Your task to perform on an android device: Open calendar and show me the fourth week of next month Image 0: 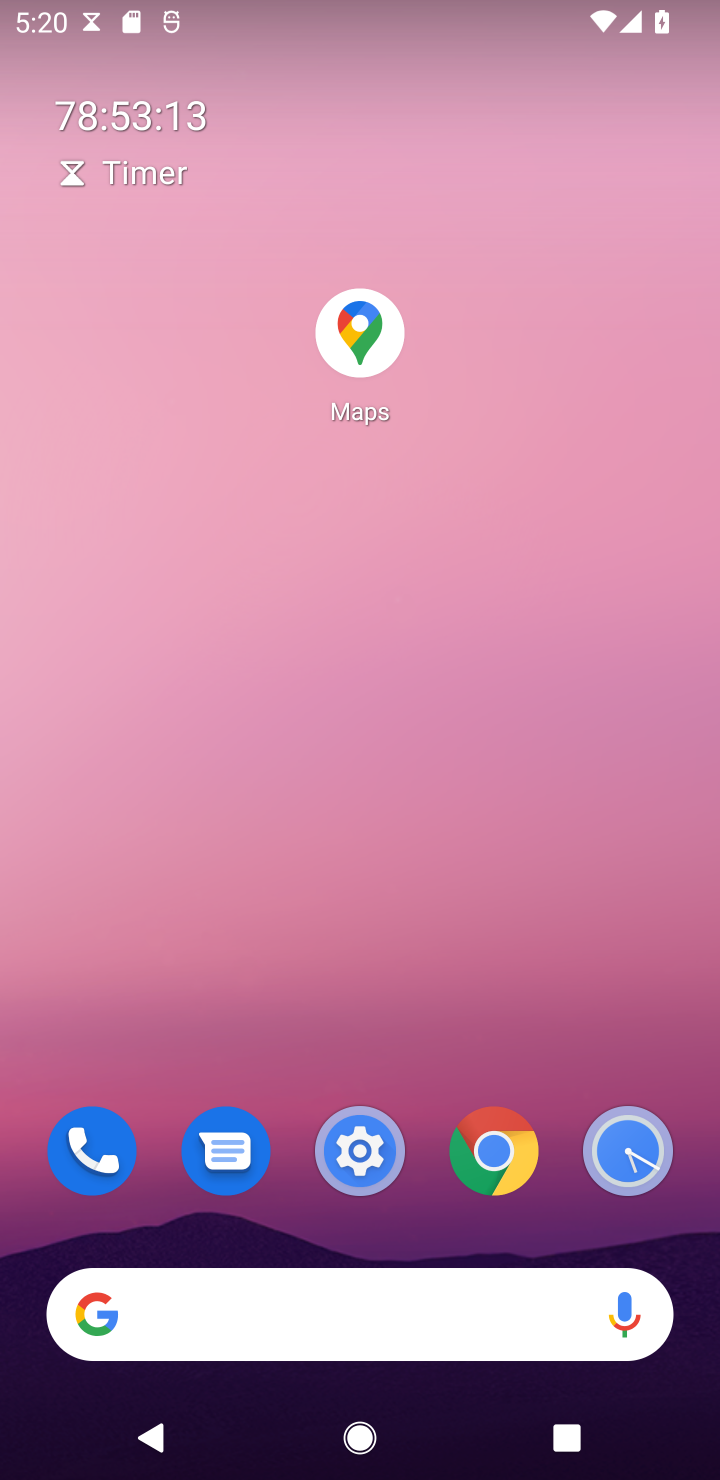
Step 0: drag from (354, 574) to (354, 483)
Your task to perform on an android device: Open calendar and show me the fourth week of next month Image 1: 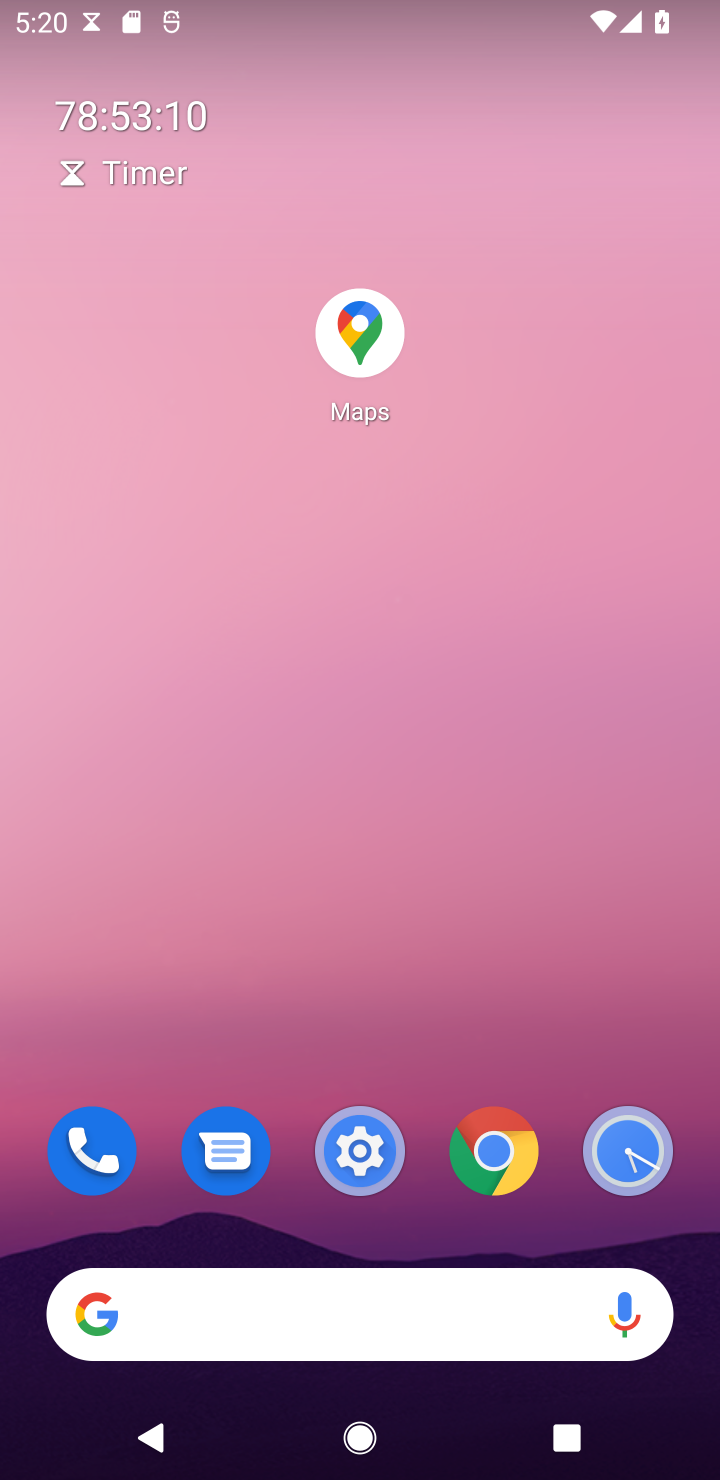
Step 1: drag from (421, 847) to (426, 606)
Your task to perform on an android device: Open calendar and show me the fourth week of next month Image 2: 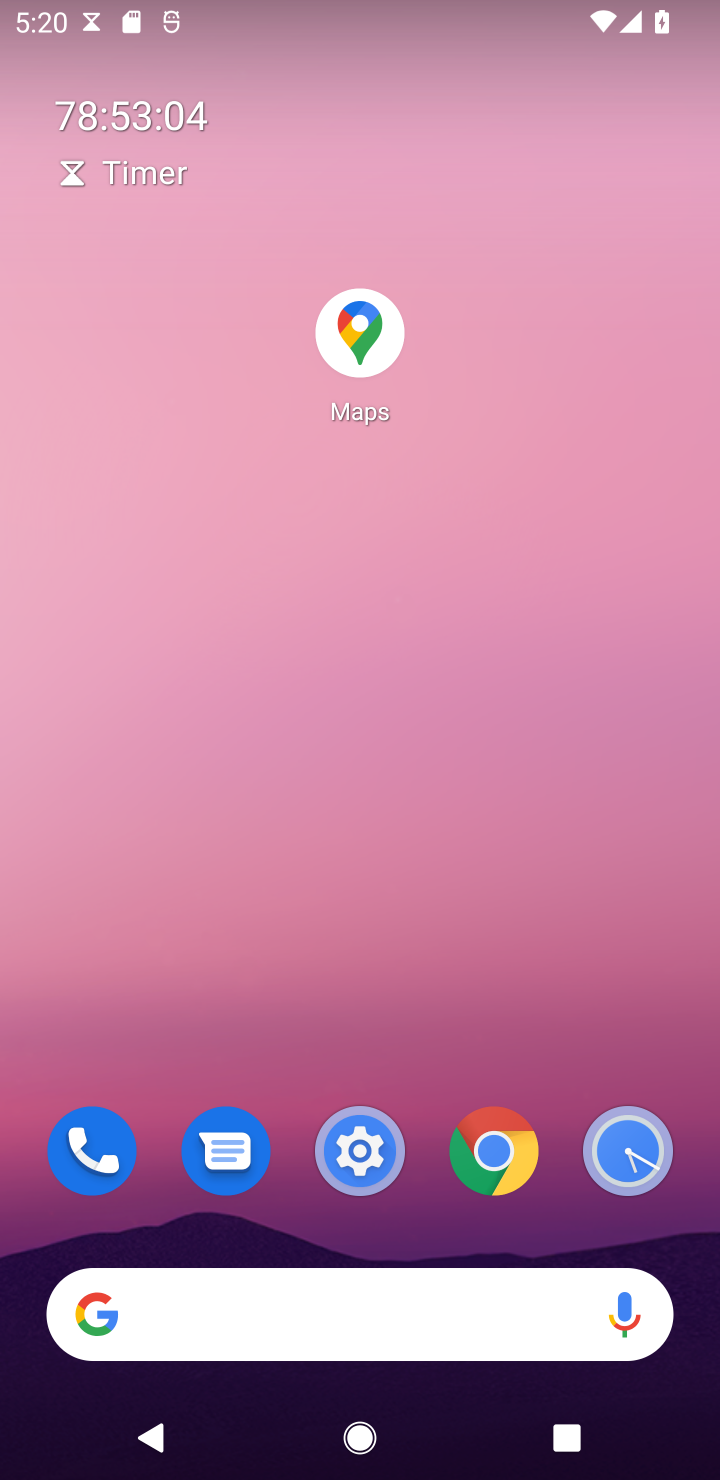
Step 2: drag from (449, 1078) to (449, 262)
Your task to perform on an android device: Open calendar and show me the fourth week of next month Image 3: 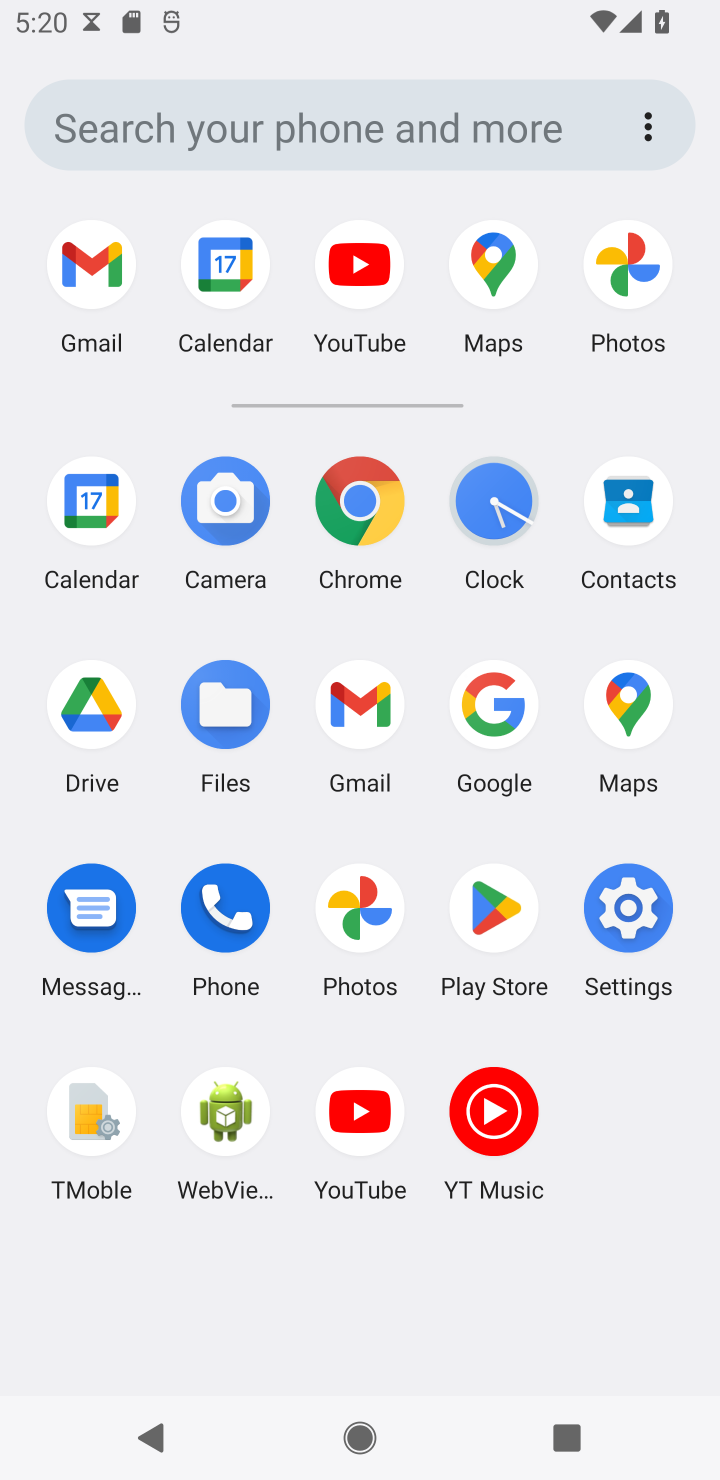
Step 3: click (210, 266)
Your task to perform on an android device: Open calendar and show me the fourth week of next month Image 4: 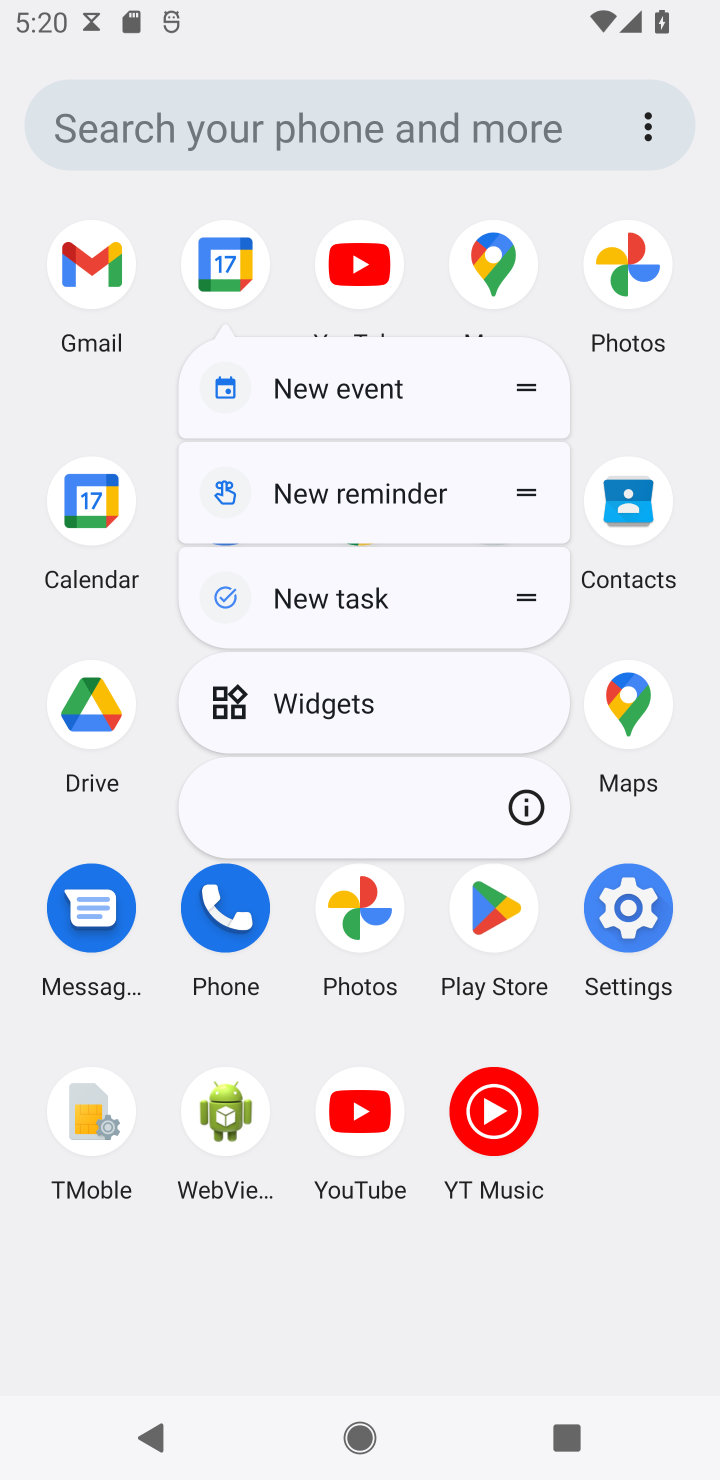
Step 4: click (210, 266)
Your task to perform on an android device: Open calendar and show me the fourth week of next month Image 5: 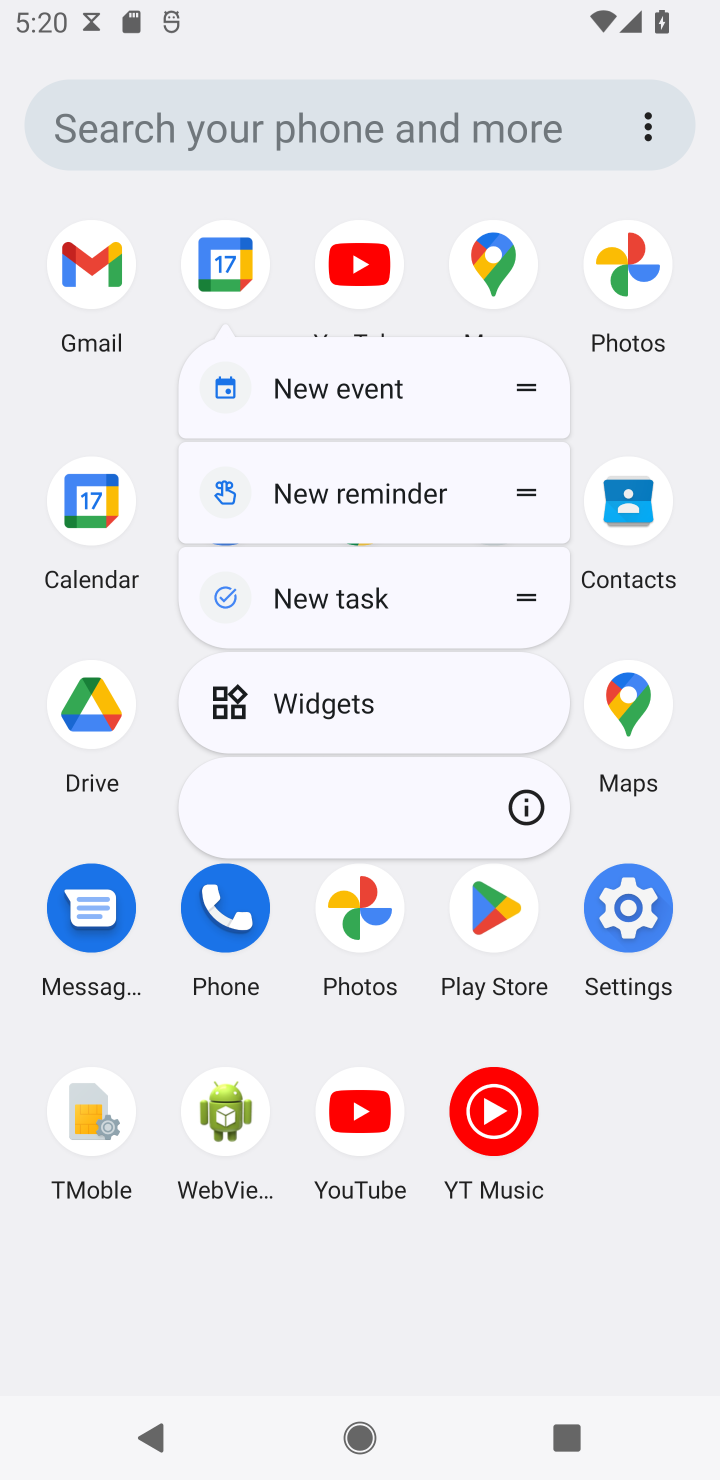
Step 5: click (210, 266)
Your task to perform on an android device: Open calendar and show me the fourth week of next month Image 6: 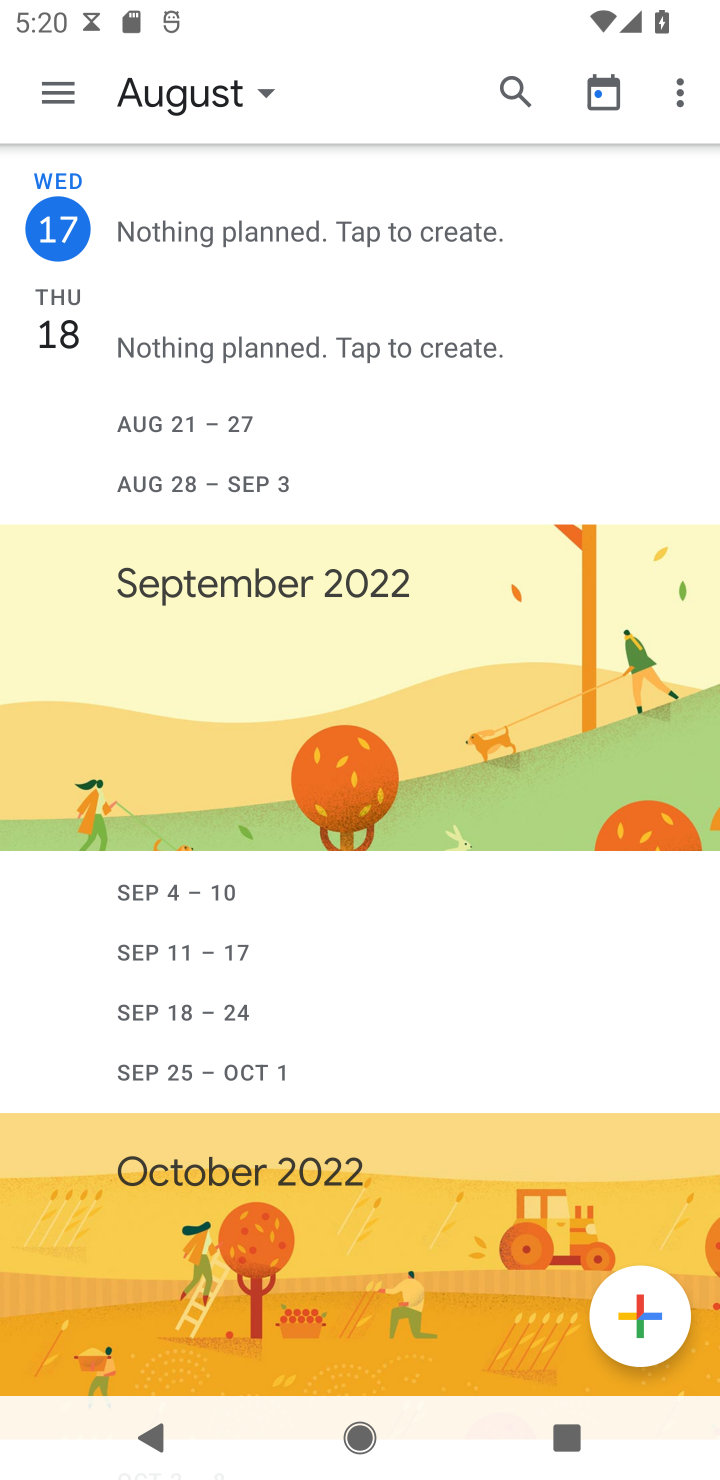
Step 6: click (62, 79)
Your task to perform on an android device: Open calendar and show me the fourth week of next month Image 7: 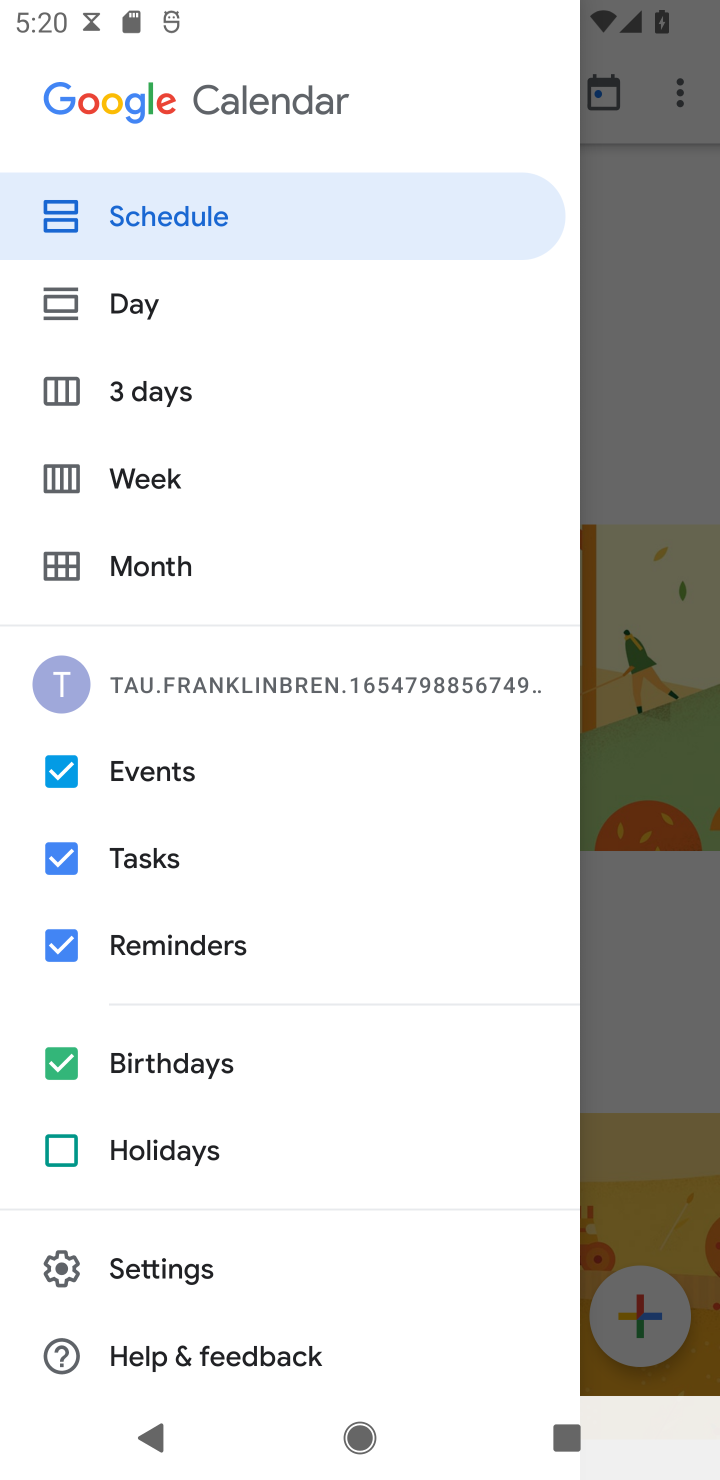
Step 7: click (161, 472)
Your task to perform on an android device: Open calendar and show me the fourth week of next month Image 8: 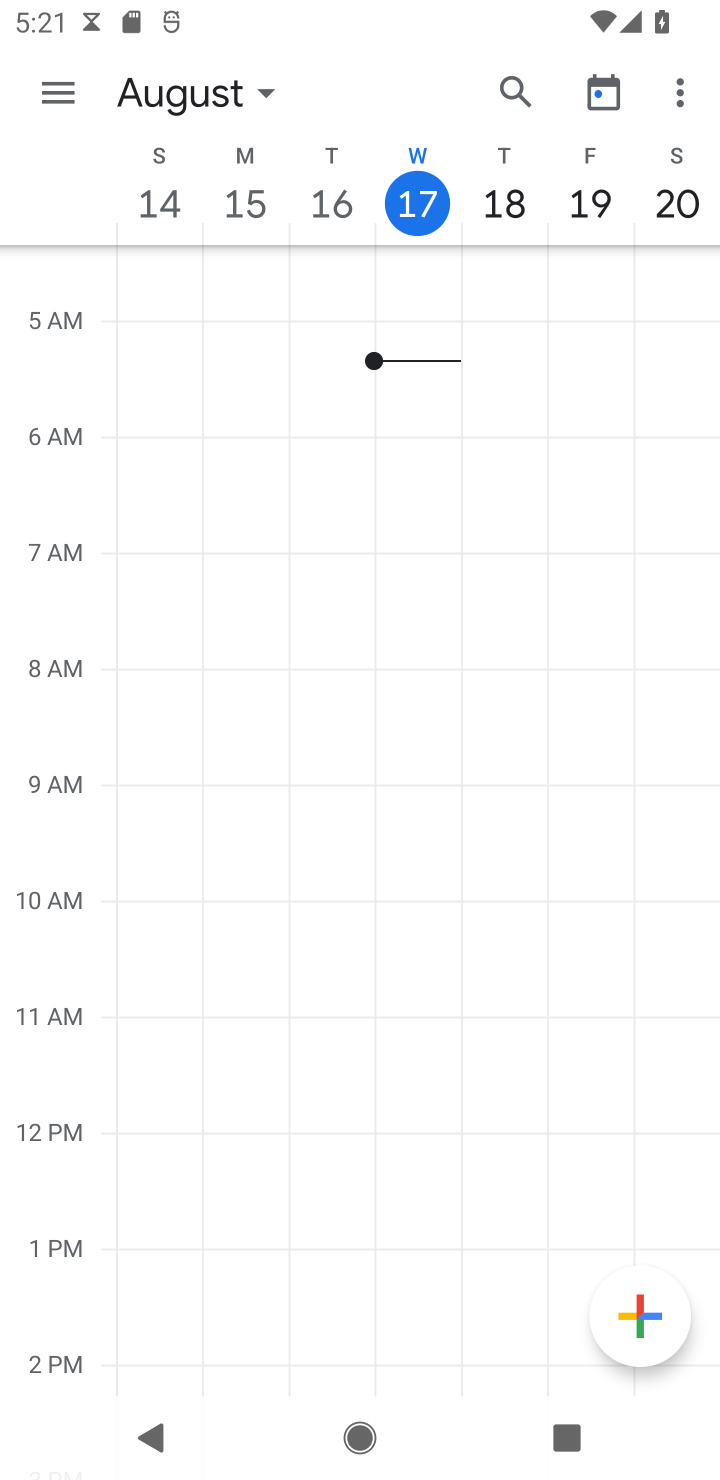
Step 8: task complete